Your task to perform on an android device: Do I have any events today? Image 0: 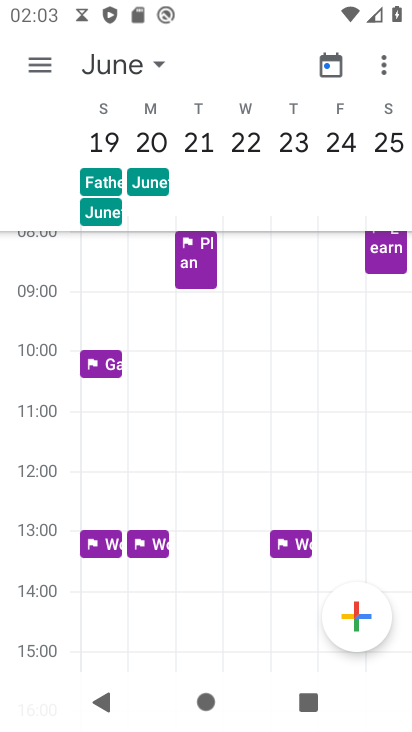
Step 0: press home button
Your task to perform on an android device: Do I have any events today? Image 1: 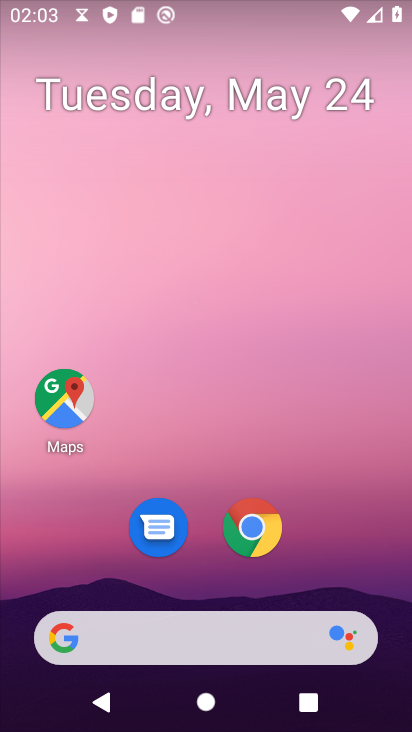
Step 1: drag from (139, 651) to (211, 283)
Your task to perform on an android device: Do I have any events today? Image 2: 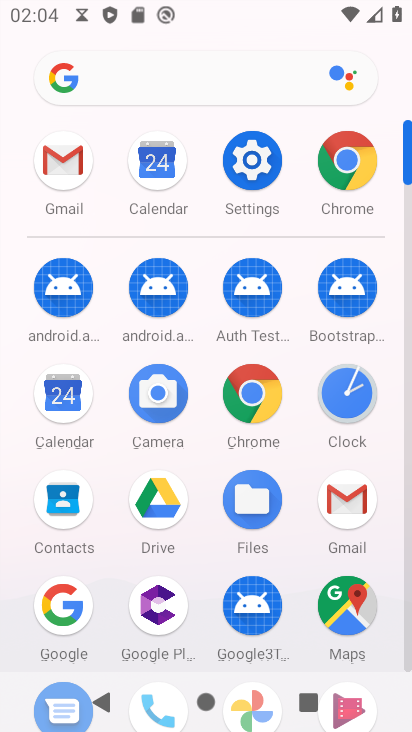
Step 2: click (63, 395)
Your task to perform on an android device: Do I have any events today? Image 3: 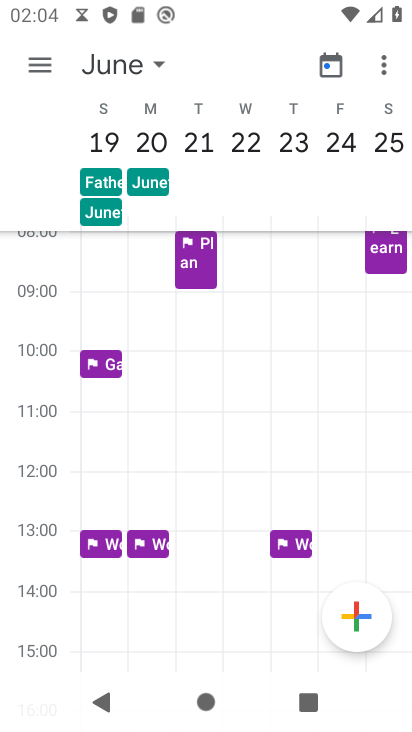
Step 3: click (119, 65)
Your task to perform on an android device: Do I have any events today? Image 4: 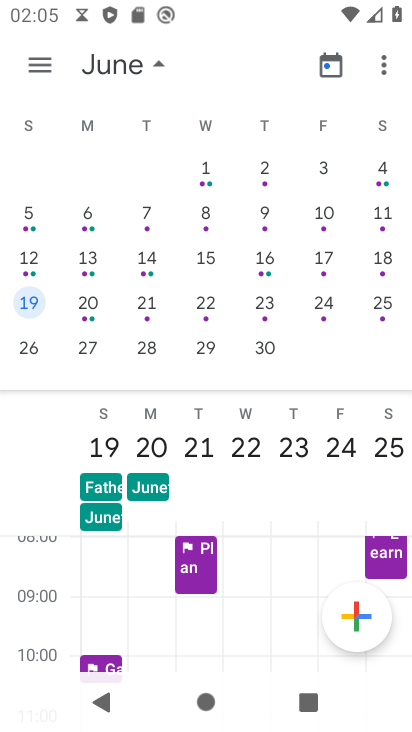
Step 4: drag from (138, 267) to (412, 276)
Your task to perform on an android device: Do I have any events today? Image 5: 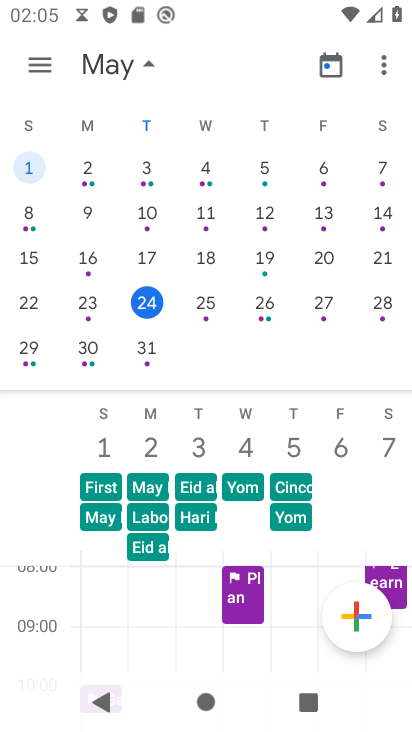
Step 5: click (162, 306)
Your task to perform on an android device: Do I have any events today? Image 6: 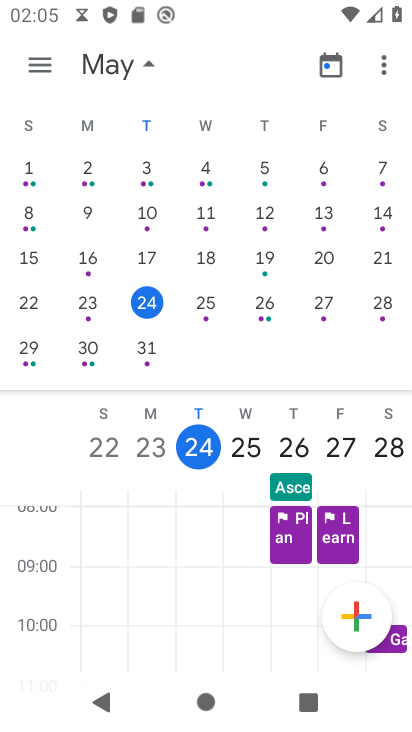
Step 6: click (37, 63)
Your task to perform on an android device: Do I have any events today? Image 7: 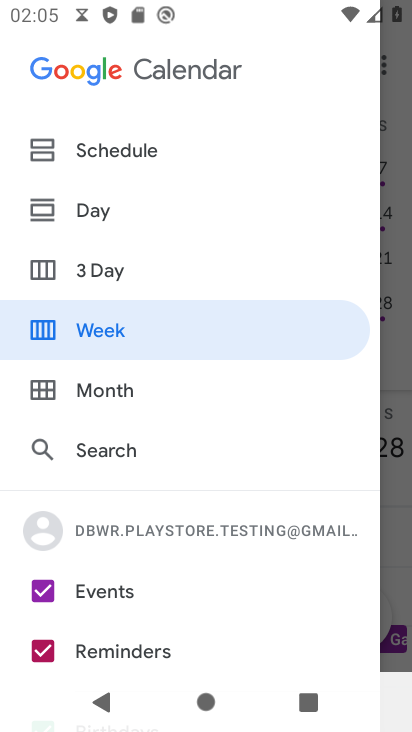
Step 7: click (95, 205)
Your task to perform on an android device: Do I have any events today? Image 8: 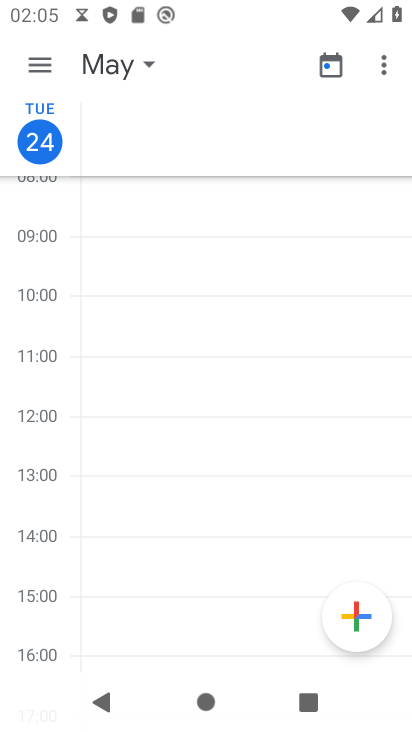
Step 8: click (44, 67)
Your task to perform on an android device: Do I have any events today? Image 9: 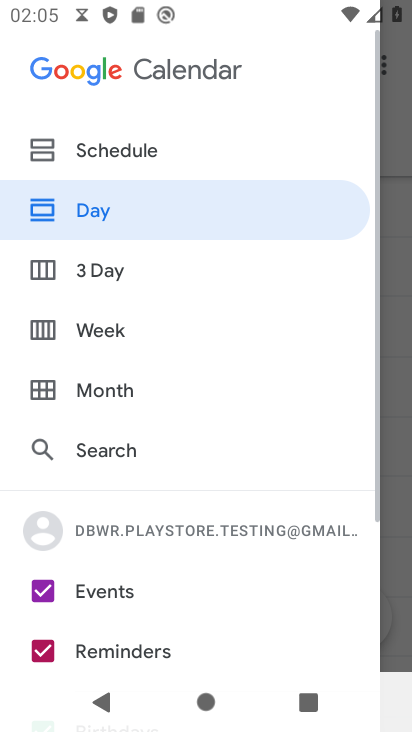
Step 9: click (100, 155)
Your task to perform on an android device: Do I have any events today? Image 10: 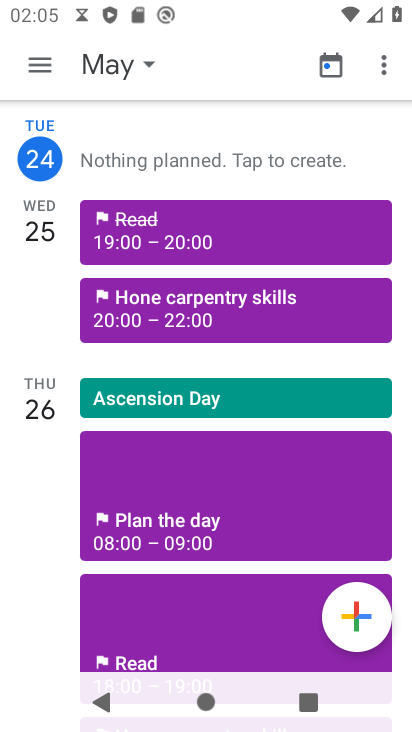
Step 10: task complete